Your task to perform on an android device: check the backup settings in the google photos Image 0: 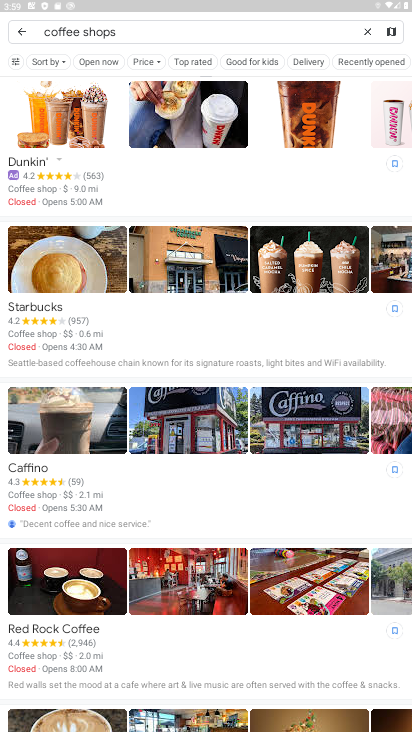
Step 0: press home button
Your task to perform on an android device: check the backup settings in the google photos Image 1: 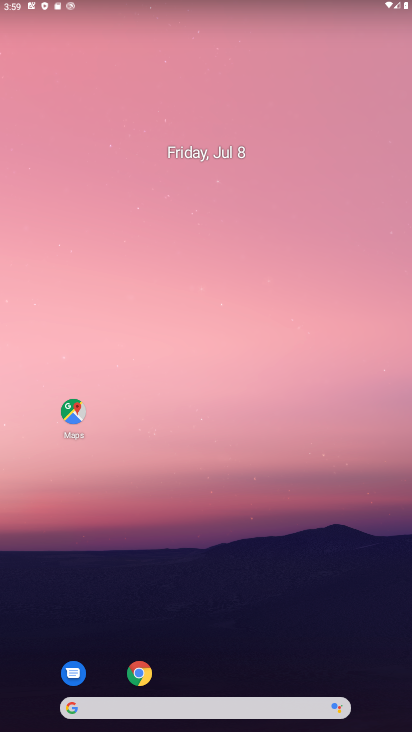
Step 1: drag from (251, 681) to (220, 23)
Your task to perform on an android device: check the backup settings in the google photos Image 2: 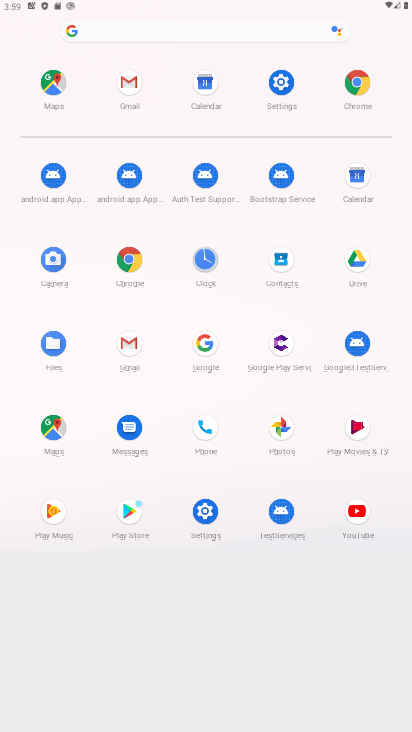
Step 2: click (284, 426)
Your task to perform on an android device: check the backup settings in the google photos Image 3: 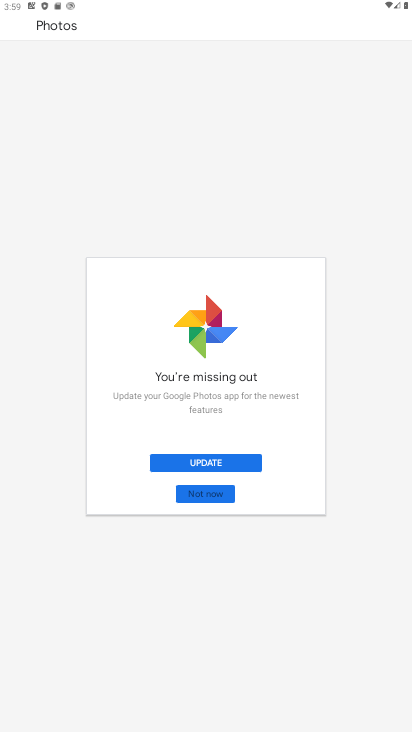
Step 3: click (196, 497)
Your task to perform on an android device: check the backup settings in the google photos Image 4: 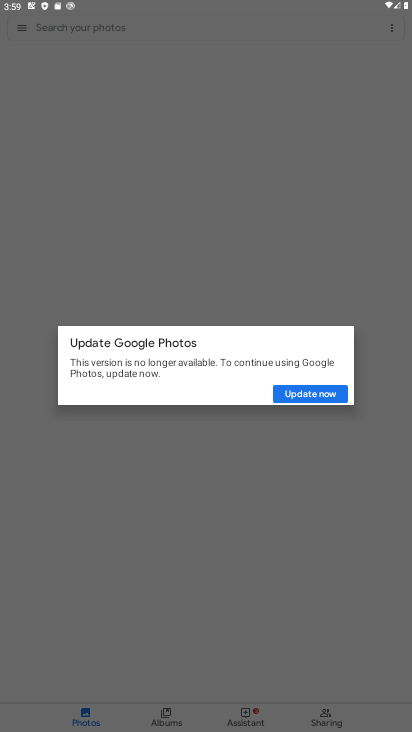
Step 4: click (295, 388)
Your task to perform on an android device: check the backup settings in the google photos Image 5: 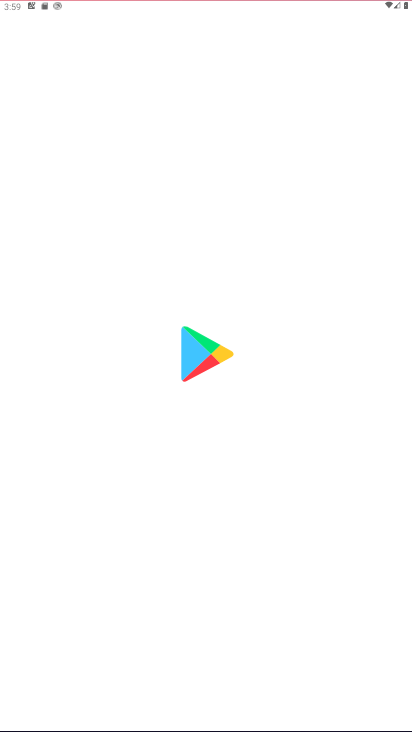
Step 5: click (21, 27)
Your task to perform on an android device: check the backup settings in the google photos Image 6: 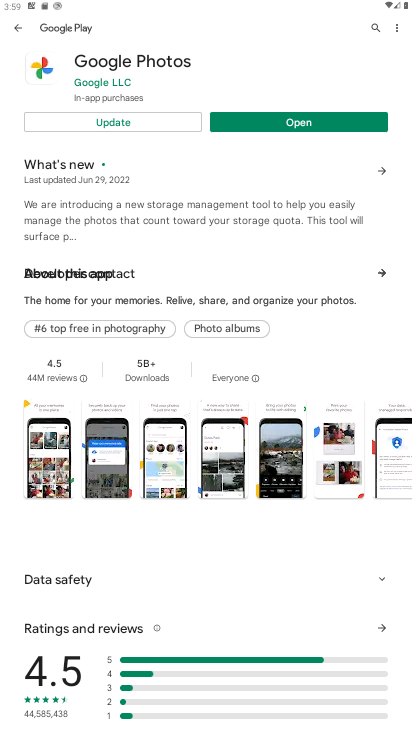
Step 6: click (275, 119)
Your task to perform on an android device: check the backup settings in the google photos Image 7: 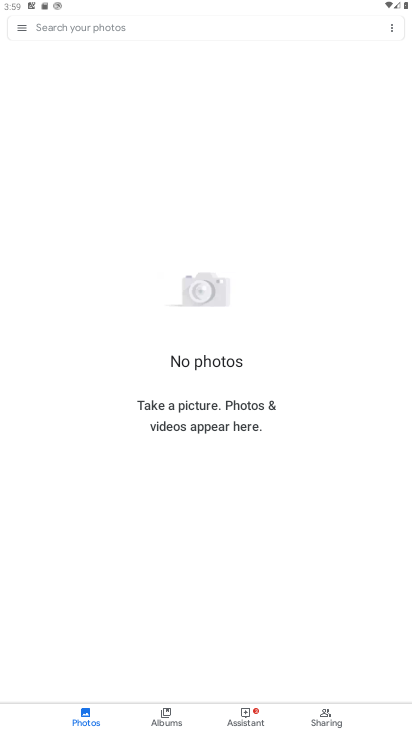
Step 7: click (17, 28)
Your task to perform on an android device: check the backup settings in the google photos Image 8: 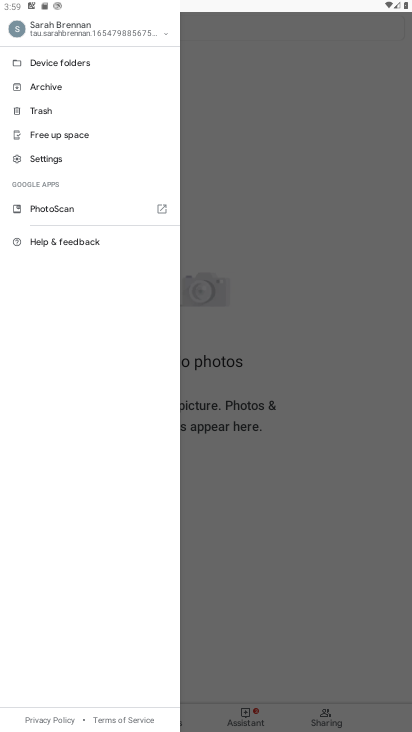
Step 8: click (41, 163)
Your task to perform on an android device: check the backup settings in the google photos Image 9: 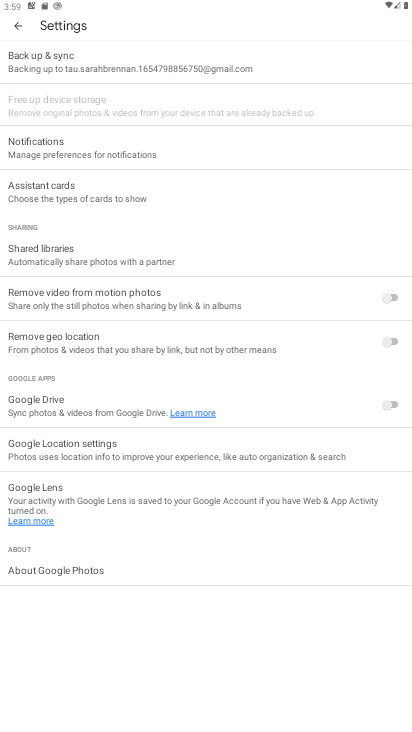
Step 9: click (54, 71)
Your task to perform on an android device: check the backup settings in the google photos Image 10: 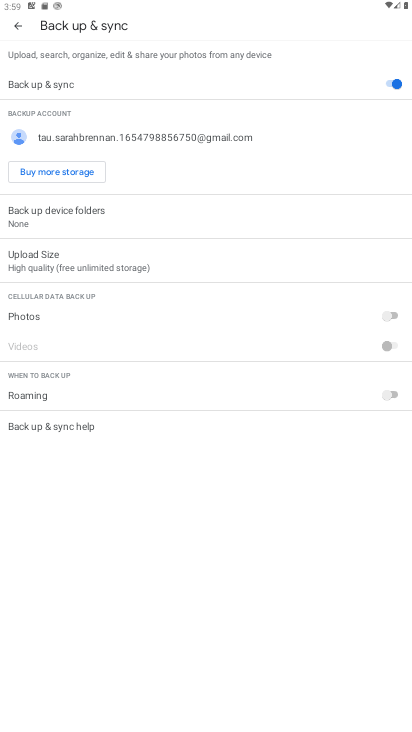
Step 10: task complete